Your task to perform on an android device: delete the emails in spam in the gmail app Image 0: 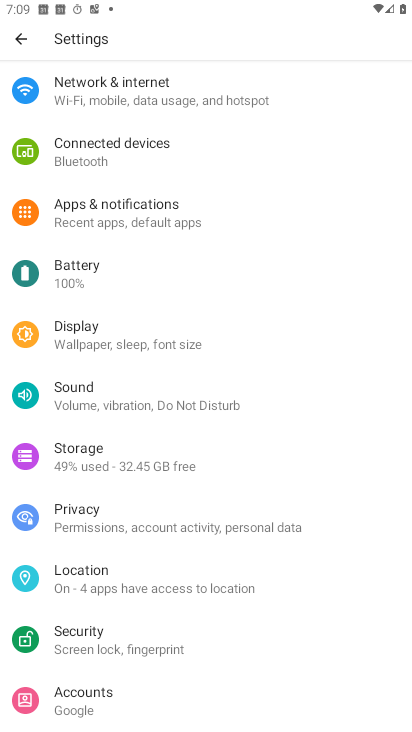
Step 0: press home button
Your task to perform on an android device: delete the emails in spam in the gmail app Image 1: 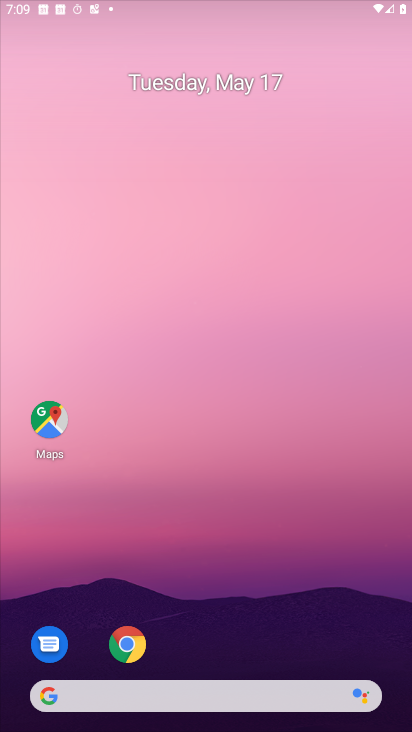
Step 1: drag from (366, 646) to (264, 72)
Your task to perform on an android device: delete the emails in spam in the gmail app Image 2: 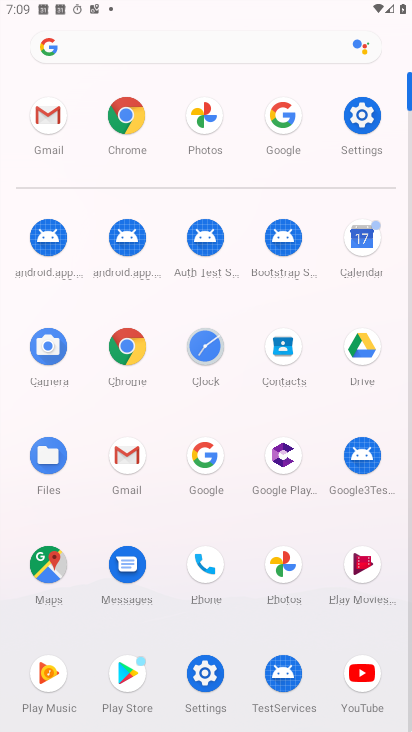
Step 2: click (120, 456)
Your task to perform on an android device: delete the emails in spam in the gmail app Image 3: 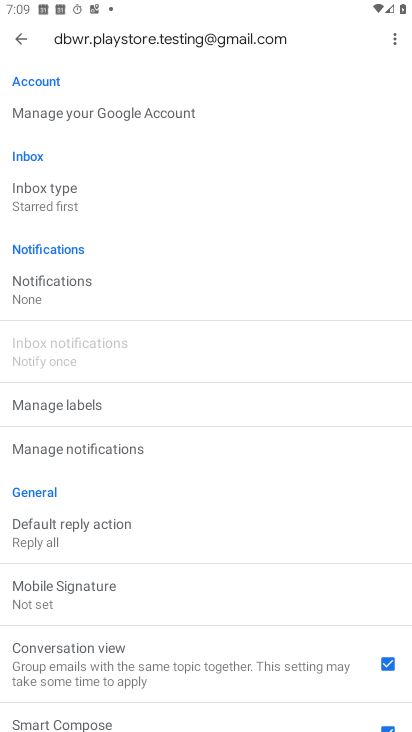
Step 3: press back button
Your task to perform on an android device: delete the emails in spam in the gmail app Image 4: 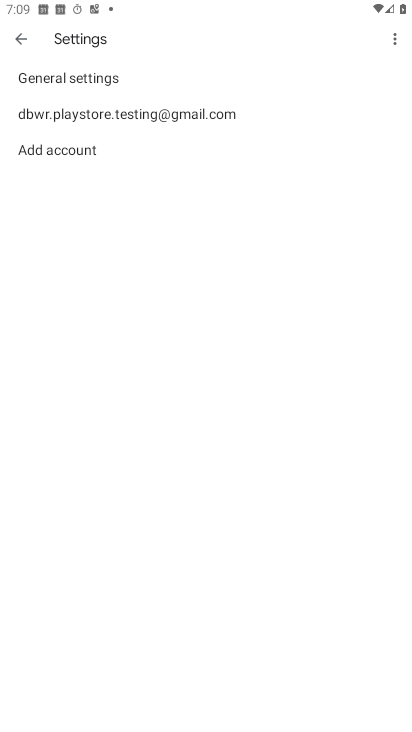
Step 4: press back button
Your task to perform on an android device: delete the emails in spam in the gmail app Image 5: 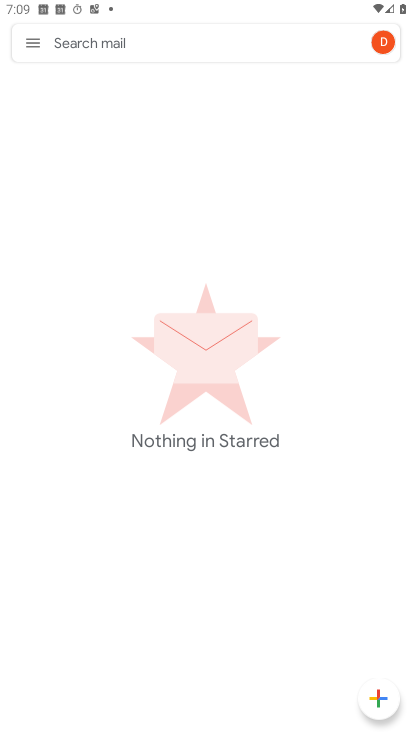
Step 5: click (37, 31)
Your task to perform on an android device: delete the emails in spam in the gmail app Image 6: 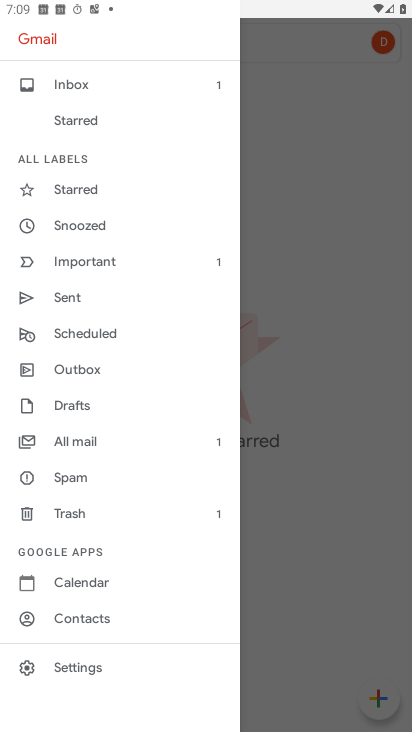
Step 6: click (78, 474)
Your task to perform on an android device: delete the emails in spam in the gmail app Image 7: 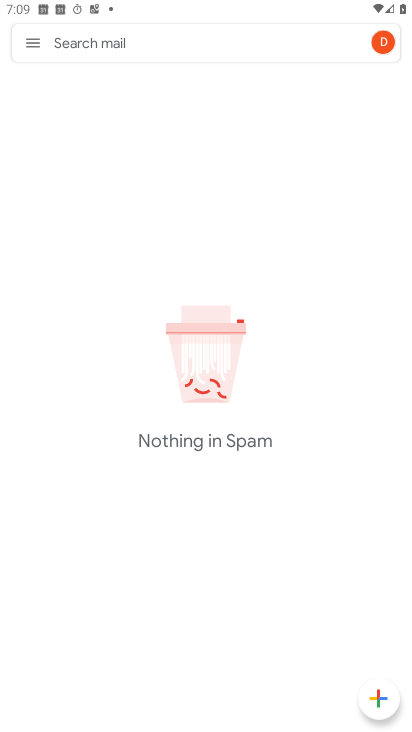
Step 7: task complete